Your task to perform on an android device: turn on priority inbox in the gmail app Image 0: 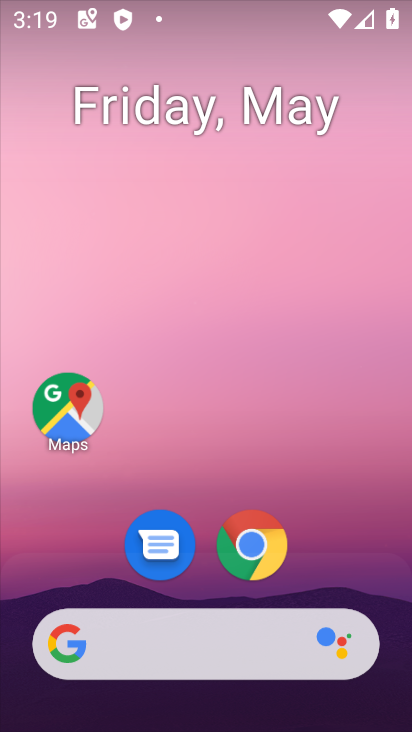
Step 0: press home button
Your task to perform on an android device: turn on priority inbox in the gmail app Image 1: 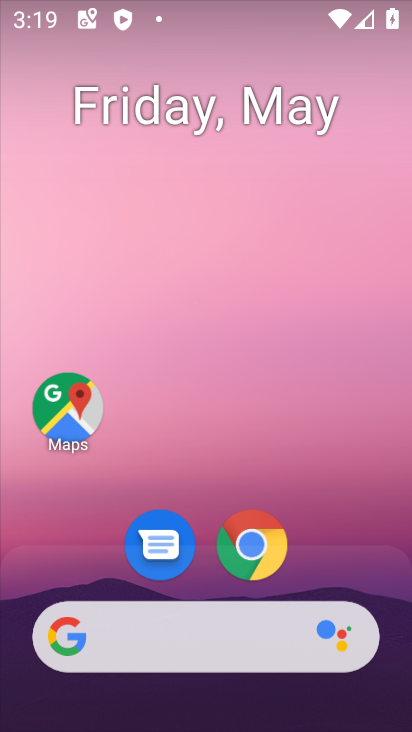
Step 1: drag from (174, 653) to (317, 82)
Your task to perform on an android device: turn on priority inbox in the gmail app Image 2: 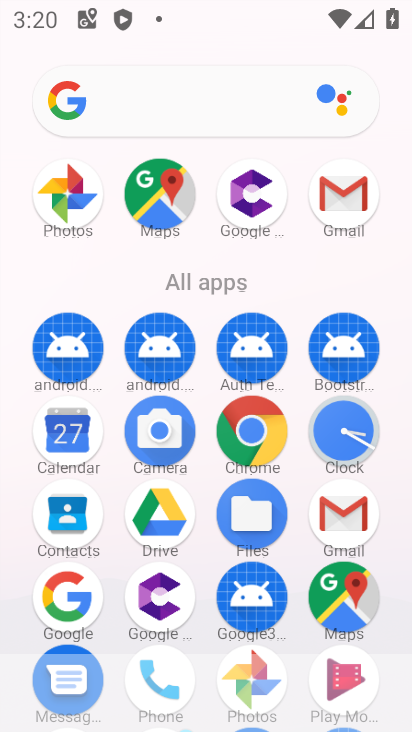
Step 2: click (351, 198)
Your task to perform on an android device: turn on priority inbox in the gmail app Image 3: 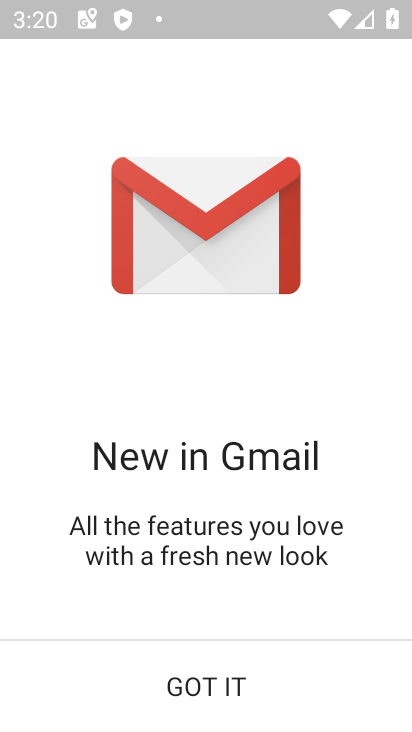
Step 3: click (234, 687)
Your task to perform on an android device: turn on priority inbox in the gmail app Image 4: 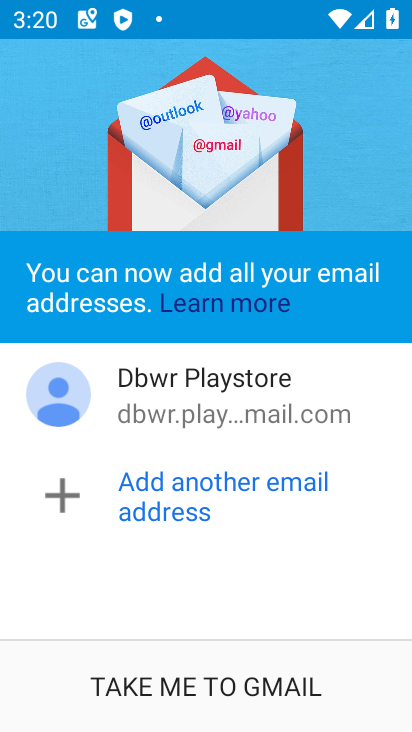
Step 4: click (234, 687)
Your task to perform on an android device: turn on priority inbox in the gmail app Image 5: 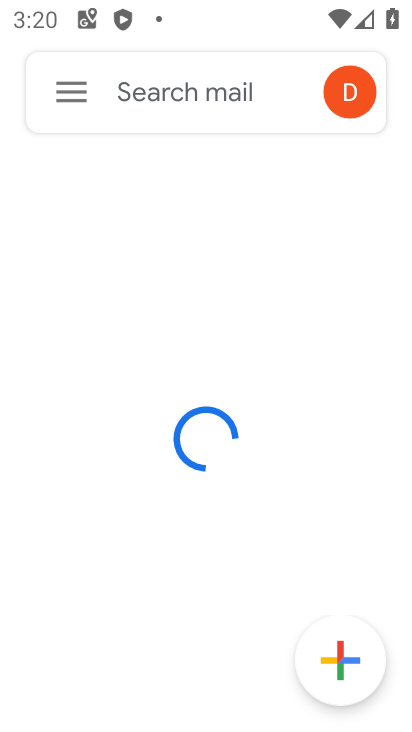
Step 5: click (67, 94)
Your task to perform on an android device: turn on priority inbox in the gmail app Image 6: 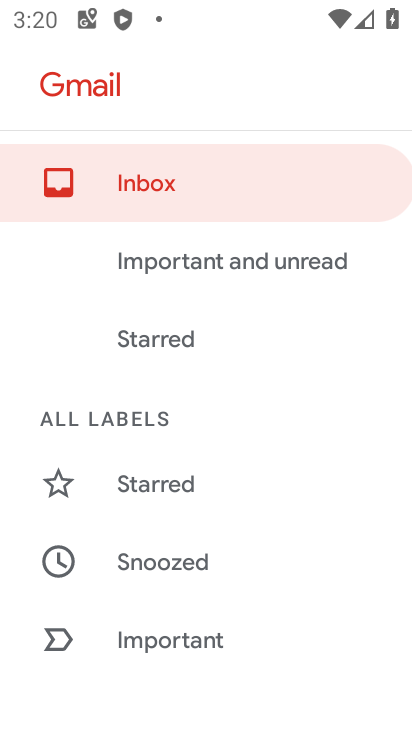
Step 6: drag from (225, 644) to (313, 69)
Your task to perform on an android device: turn on priority inbox in the gmail app Image 7: 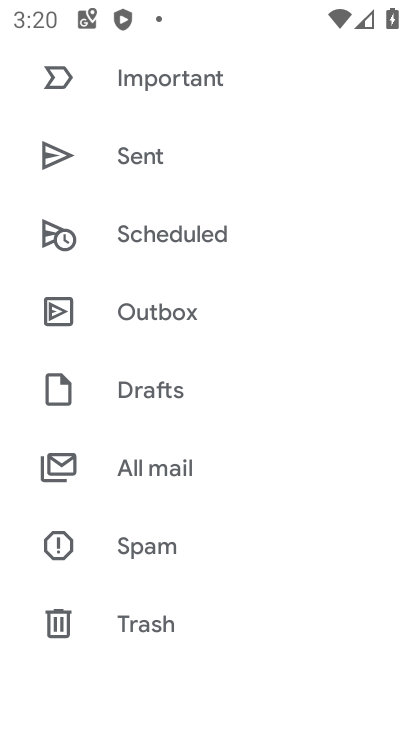
Step 7: drag from (294, 602) to (385, 44)
Your task to perform on an android device: turn on priority inbox in the gmail app Image 8: 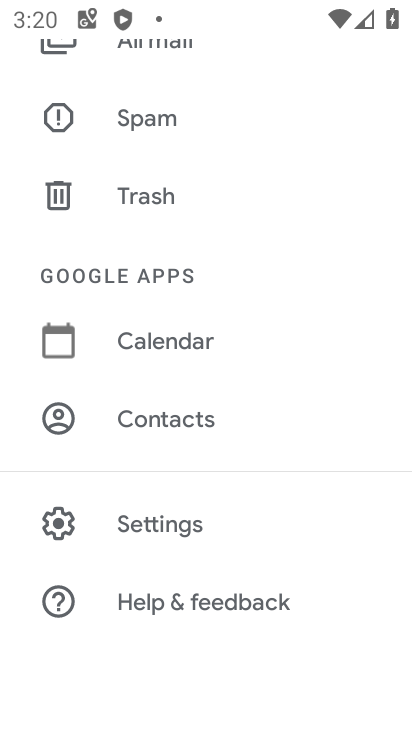
Step 8: click (165, 526)
Your task to perform on an android device: turn on priority inbox in the gmail app Image 9: 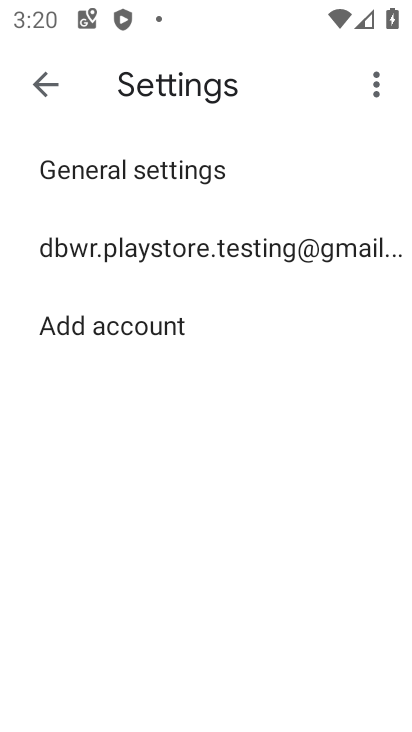
Step 9: click (245, 241)
Your task to perform on an android device: turn on priority inbox in the gmail app Image 10: 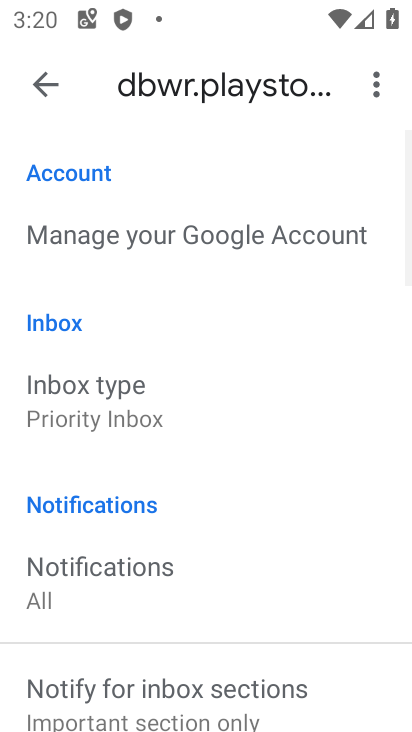
Step 10: drag from (296, 627) to (366, 160)
Your task to perform on an android device: turn on priority inbox in the gmail app Image 11: 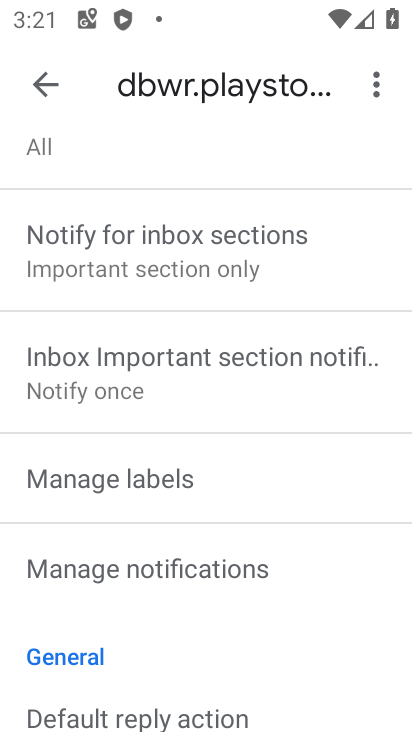
Step 11: drag from (323, 203) to (291, 698)
Your task to perform on an android device: turn on priority inbox in the gmail app Image 12: 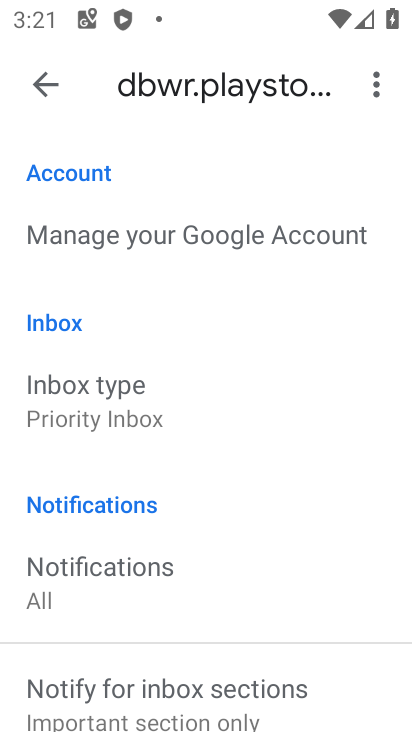
Step 12: click (131, 423)
Your task to perform on an android device: turn on priority inbox in the gmail app Image 13: 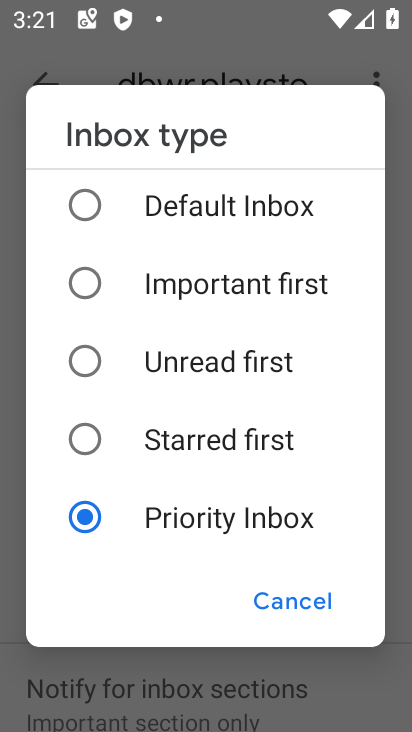
Step 13: task complete